Your task to perform on an android device: toggle location history Image 0: 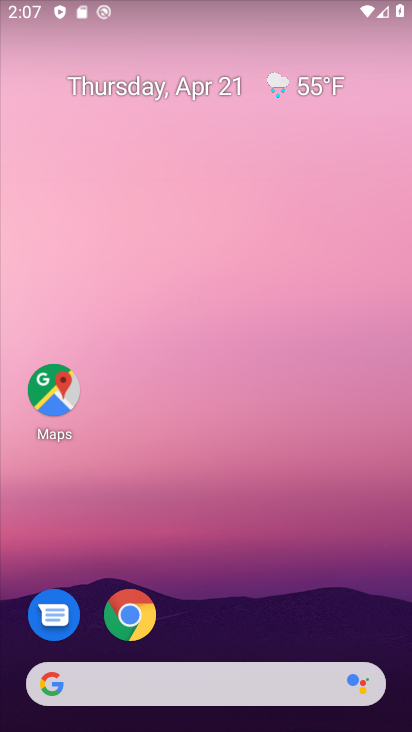
Step 0: drag from (208, 585) to (218, 0)
Your task to perform on an android device: toggle location history Image 1: 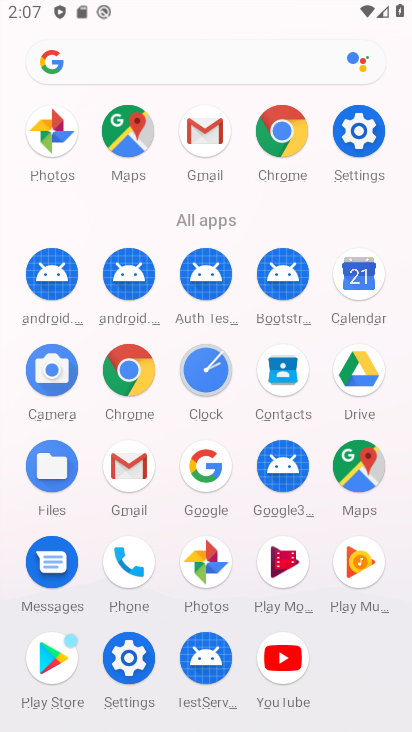
Step 1: click (367, 133)
Your task to perform on an android device: toggle location history Image 2: 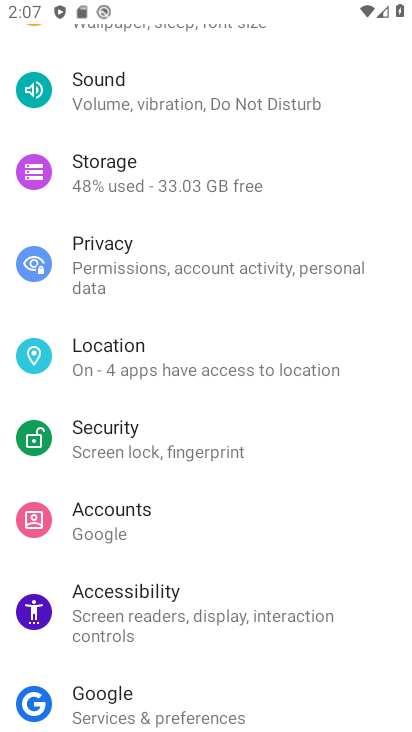
Step 2: click (100, 361)
Your task to perform on an android device: toggle location history Image 3: 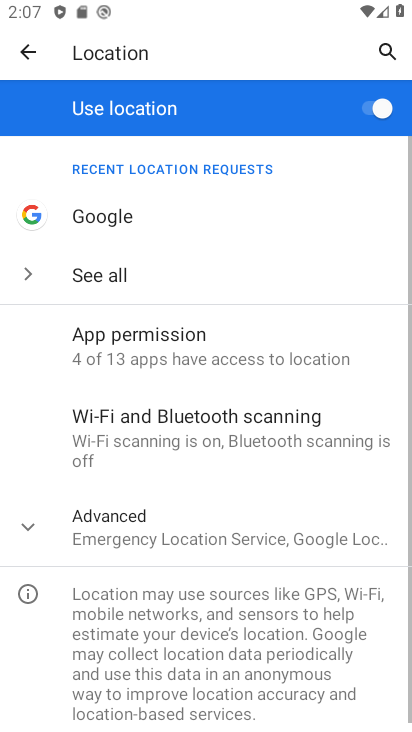
Step 3: click (159, 544)
Your task to perform on an android device: toggle location history Image 4: 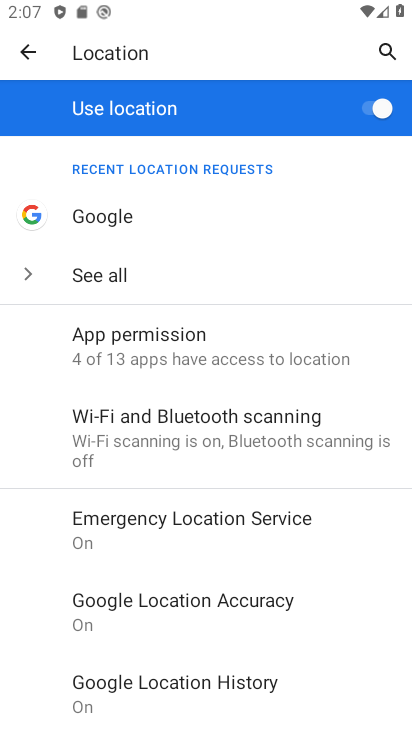
Step 4: click (180, 698)
Your task to perform on an android device: toggle location history Image 5: 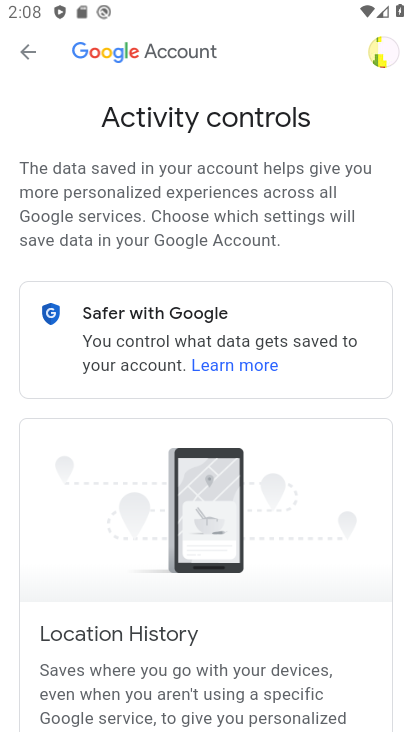
Step 5: drag from (187, 539) to (244, 221)
Your task to perform on an android device: toggle location history Image 6: 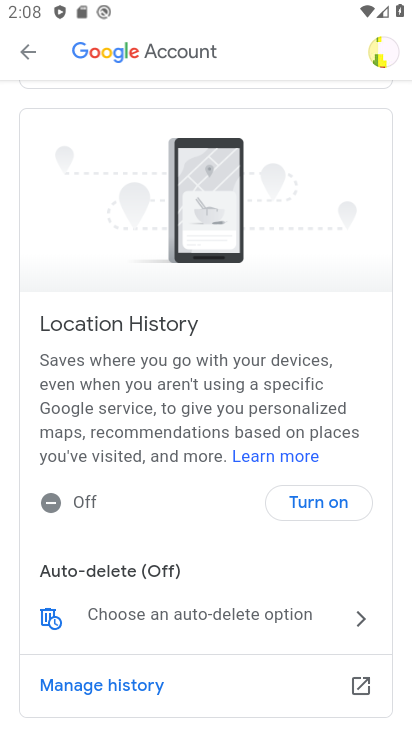
Step 6: click (328, 496)
Your task to perform on an android device: toggle location history Image 7: 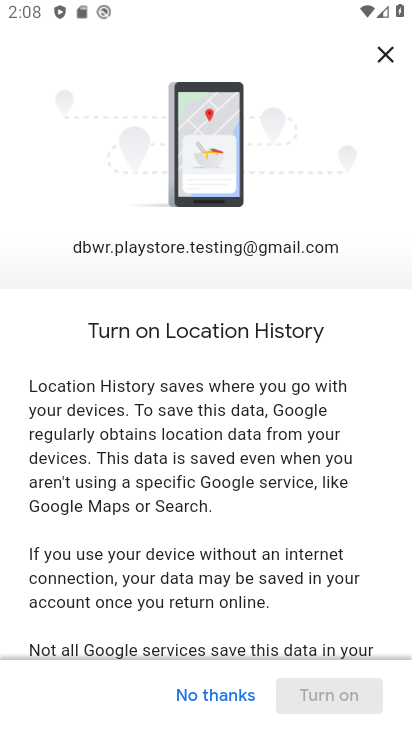
Step 7: drag from (280, 583) to (411, 118)
Your task to perform on an android device: toggle location history Image 8: 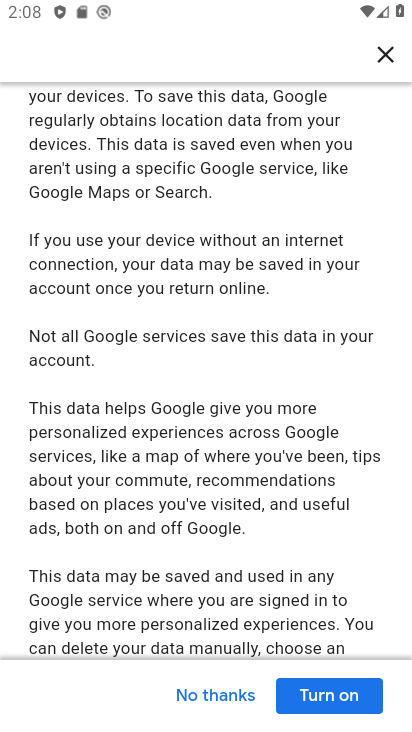
Step 8: click (310, 688)
Your task to perform on an android device: toggle location history Image 9: 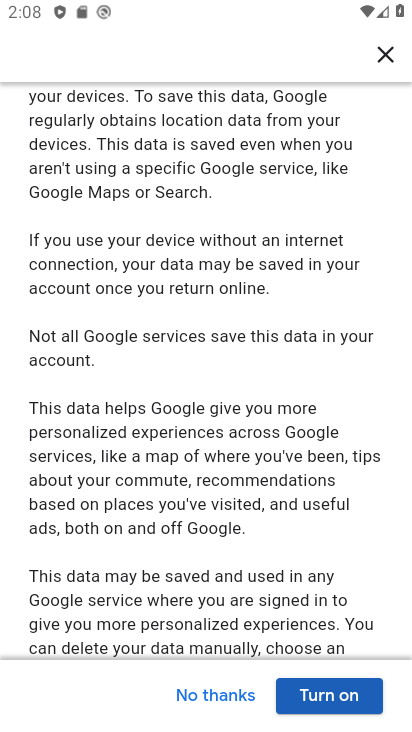
Step 9: click (340, 698)
Your task to perform on an android device: toggle location history Image 10: 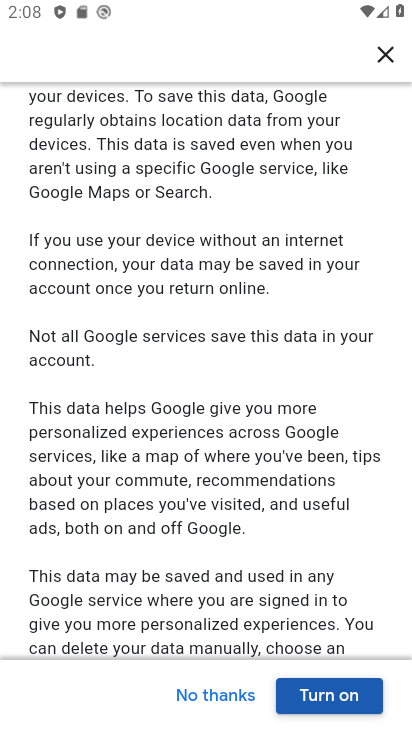
Step 10: click (311, 692)
Your task to perform on an android device: toggle location history Image 11: 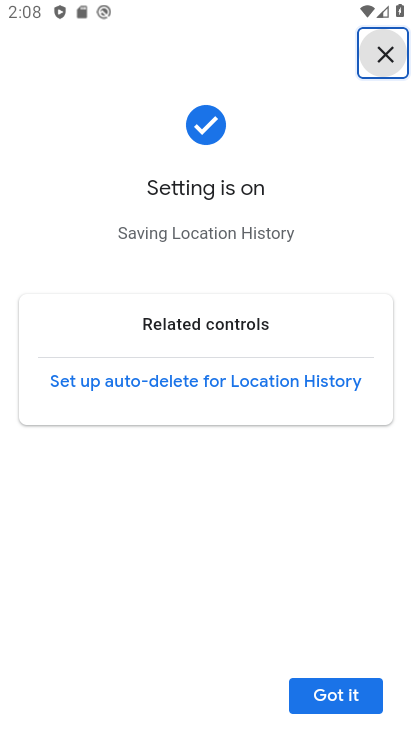
Step 11: click (302, 709)
Your task to perform on an android device: toggle location history Image 12: 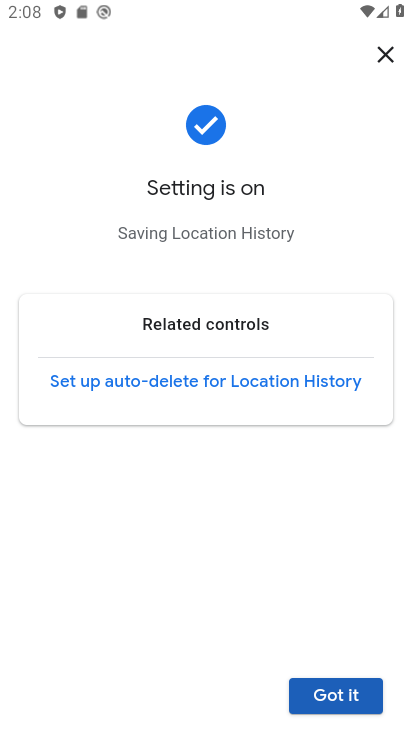
Step 12: task complete